Your task to perform on an android device: check android version Image 0: 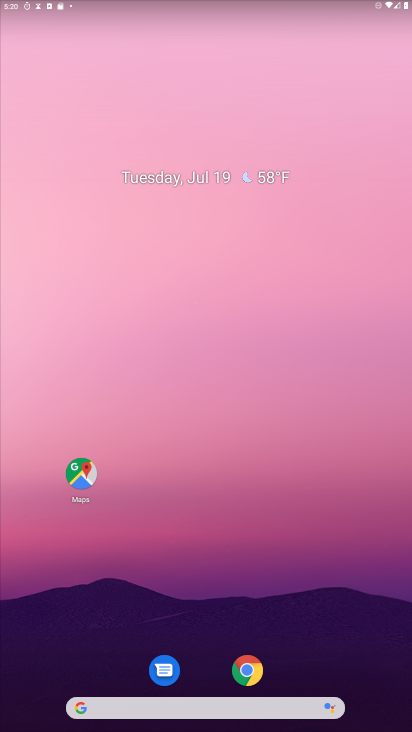
Step 0: drag from (289, 640) to (270, 22)
Your task to perform on an android device: check android version Image 1: 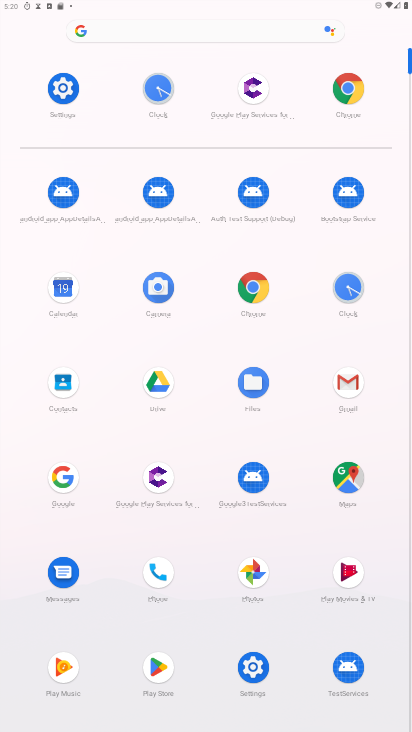
Step 1: click (64, 89)
Your task to perform on an android device: check android version Image 2: 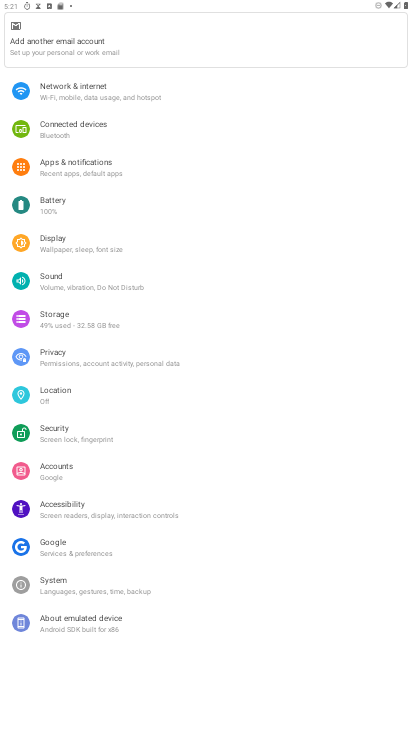
Step 2: click (107, 629)
Your task to perform on an android device: check android version Image 3: 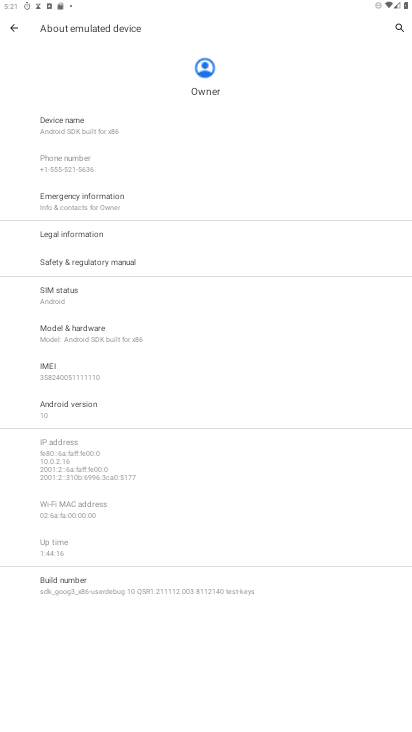
Step 3: click (71, 410)
Your task to perform on an android device: check android version Image 4: 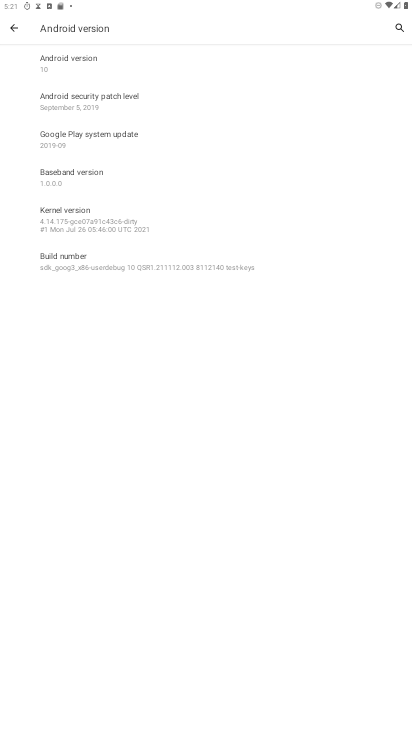
Step 4: task complete